Your task to perform on an android device: change the clock display to show seconds Image 0: 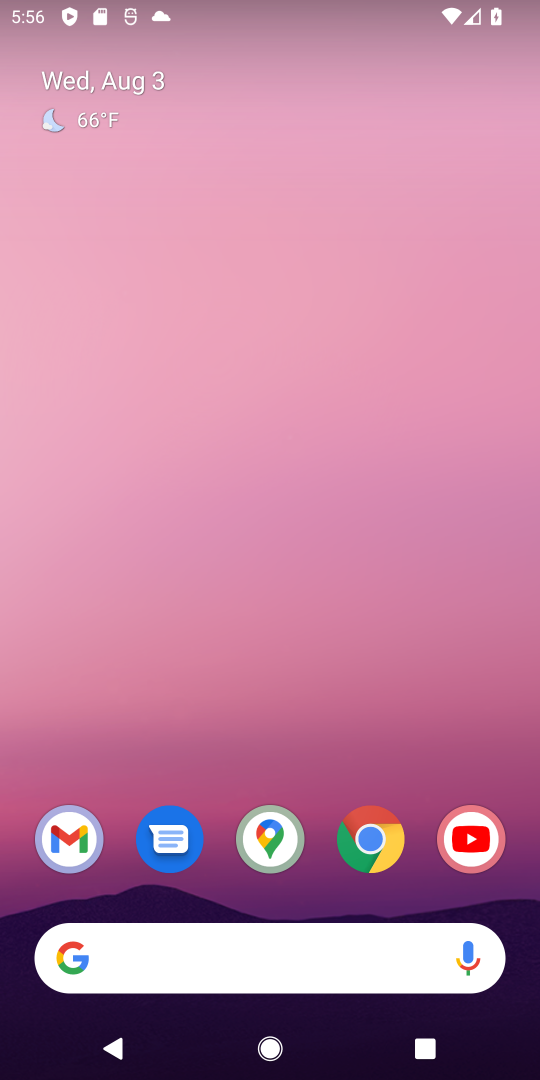
Step 0: drag from (299, 674) to (334, 0)
Your task to perform on an android device: change the clock display to show seconds Image 1: 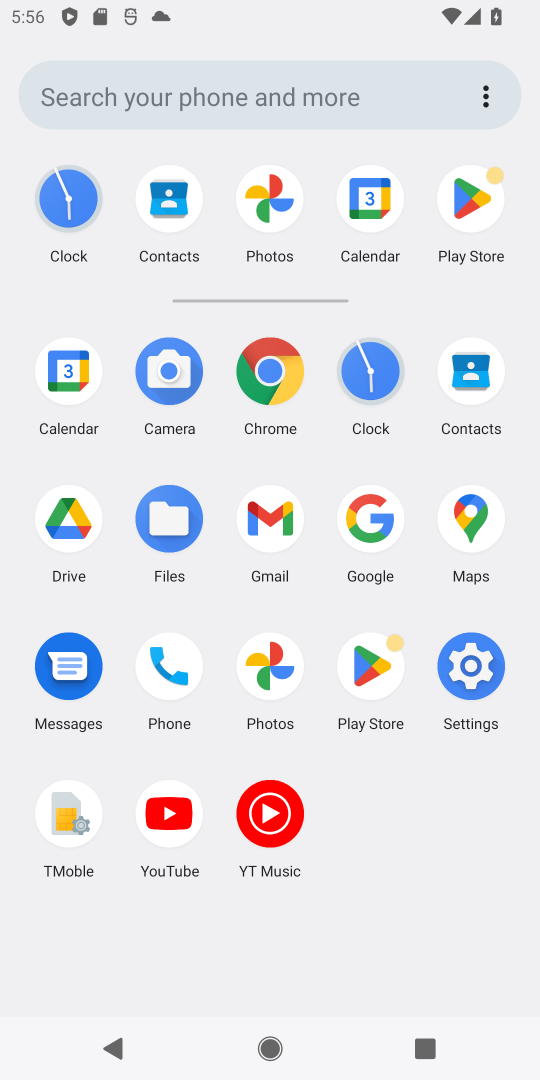
Step 1: click (367, 352)
Your task to perform on an android device: change the clock display to show seconds Image 2: 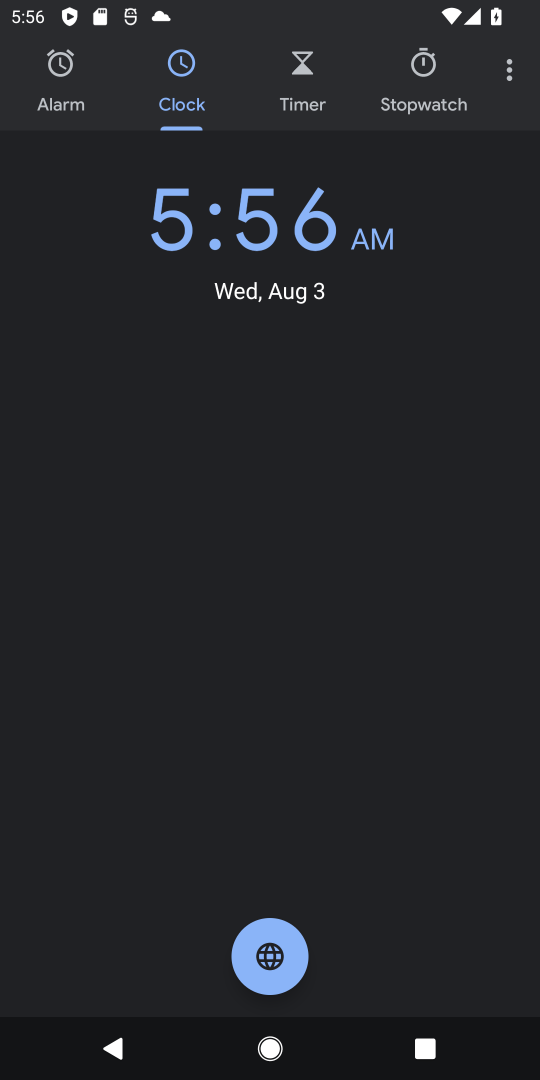
Step 2: click (513, 65)
Your task to perform on an android device: change the clock display to show seconds Image 3: 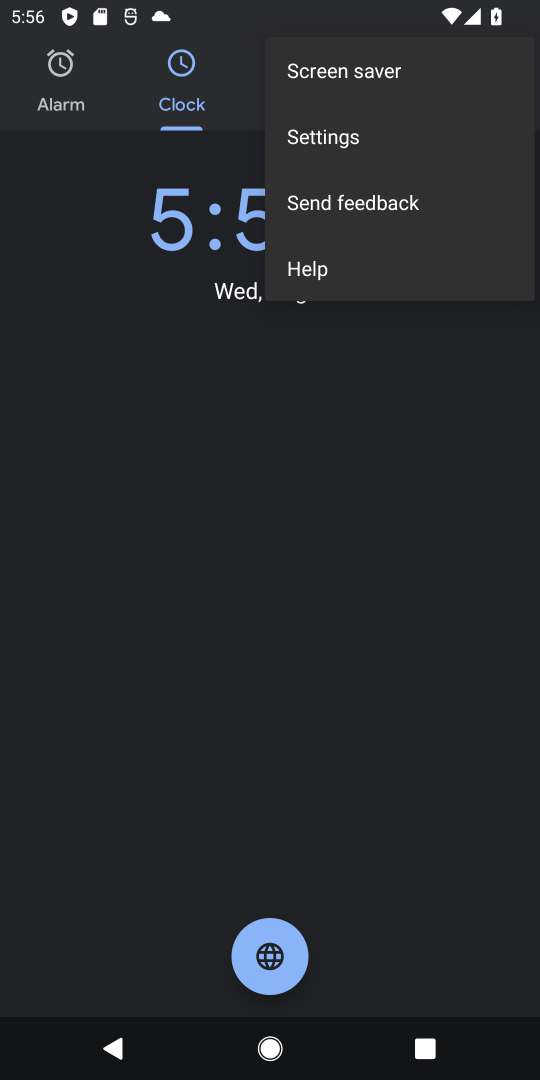
Step 3: click (353, 137)
Your task to perform on an android device: change the clock display to show seconds Image 4: 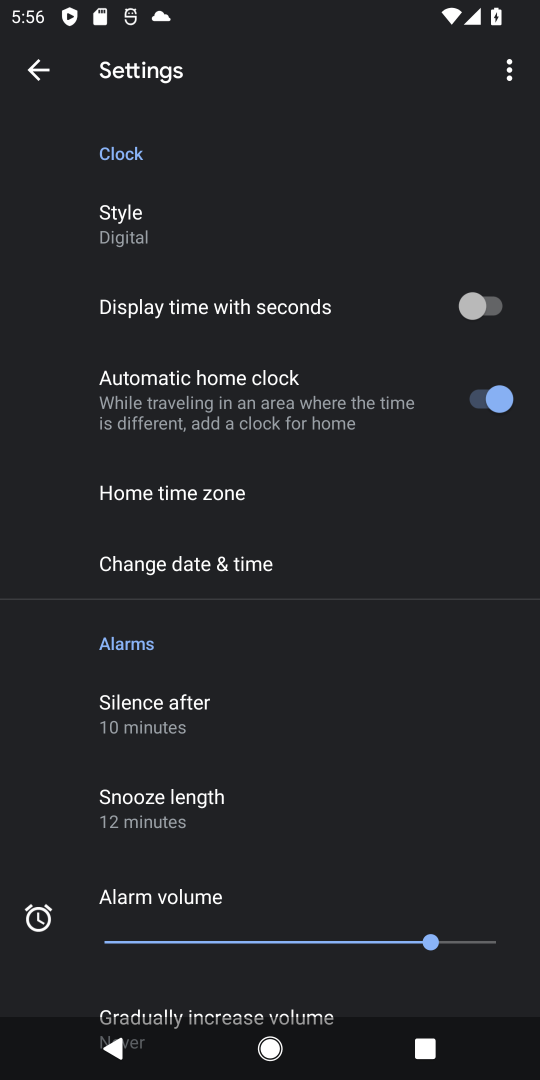
Step 4: drag from (253, 818) to (267, 959)
Your task to perform on an android device: change the clock display to show seconds Image 5: 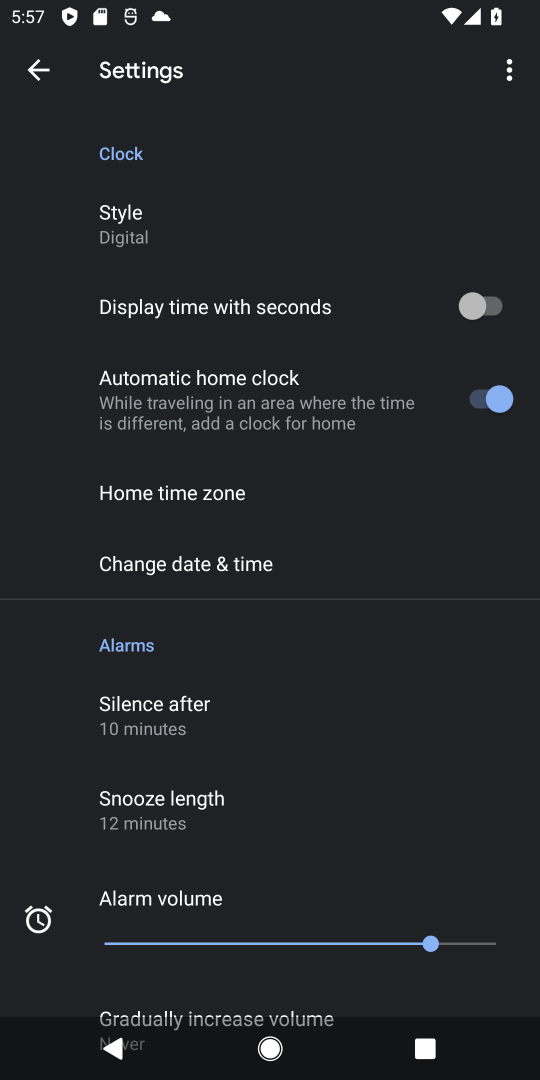
Step 5: click (481, 317)
Your task to perform on an android device: change the clock display to show seconds Image 6: 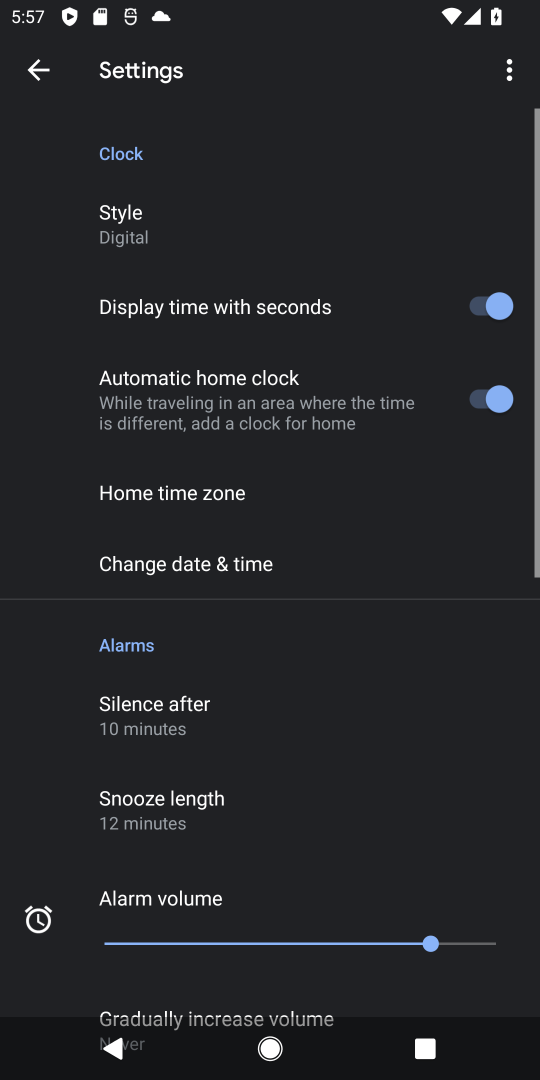
Step 6: task complete